Your task to perform on an android device: toggle data saver in the chrome app Image 0: 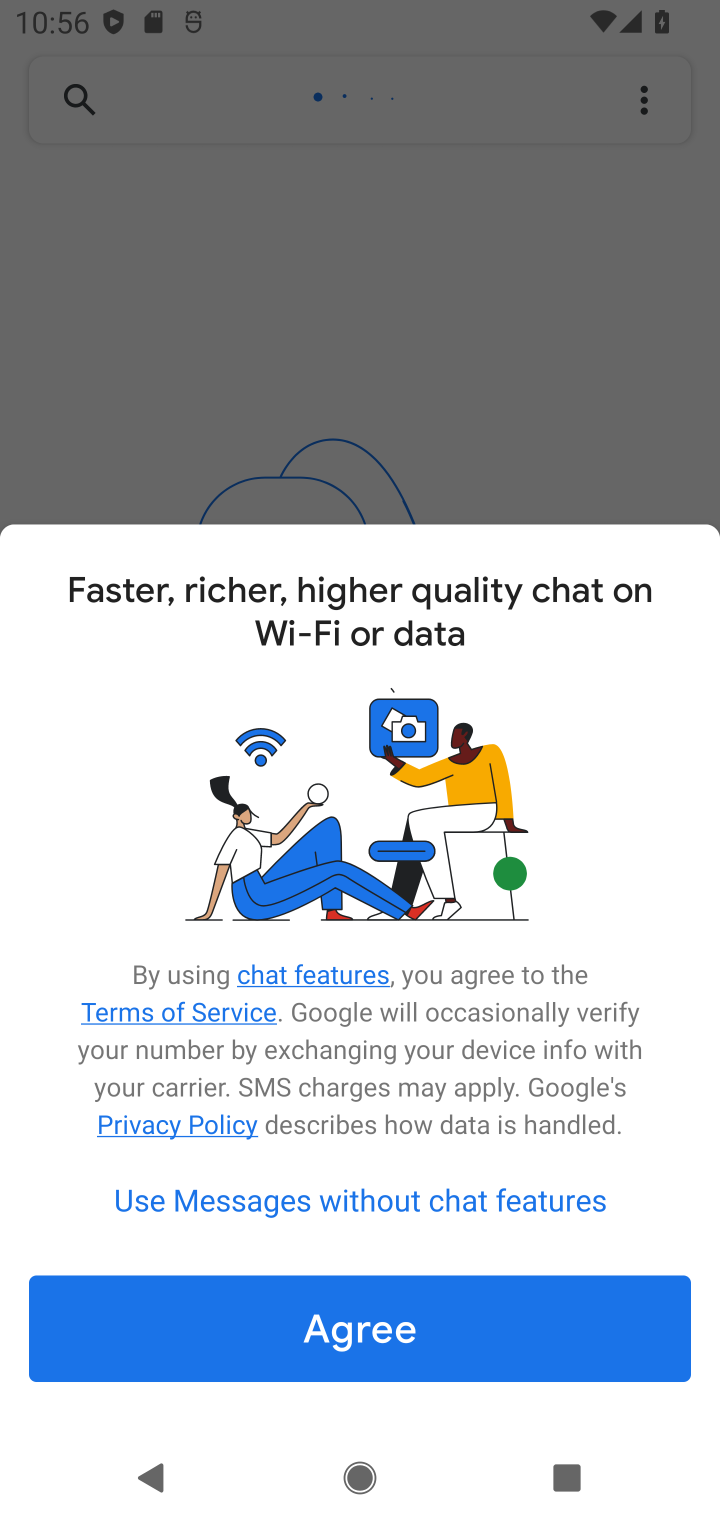
Step 0: press home button
Your task to perform on an android device: toggle data saver in the chrome app Image 1: 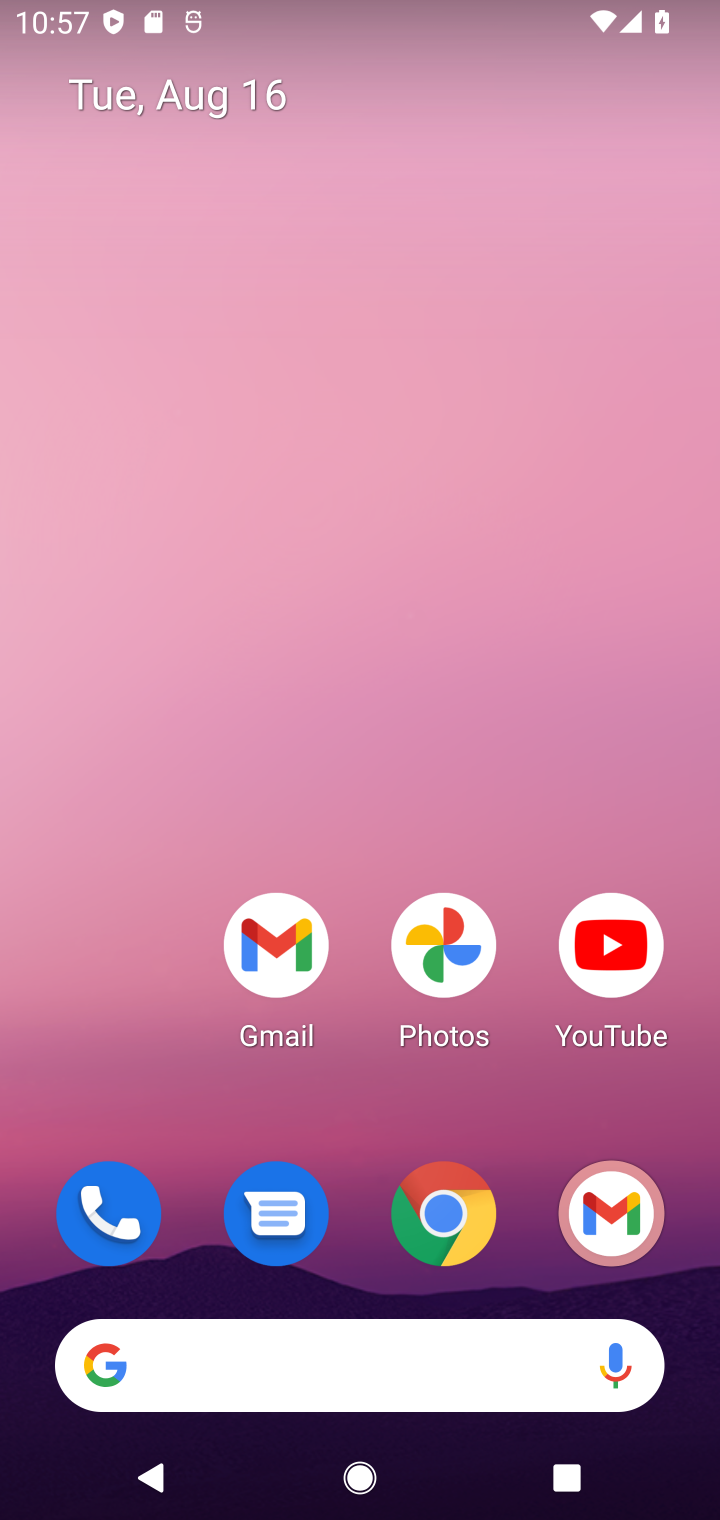
Step 1: drag from (517, 1158) to (549, 3)
Your task to perform on an android device: toggle data saver in the chrome app Image 2: 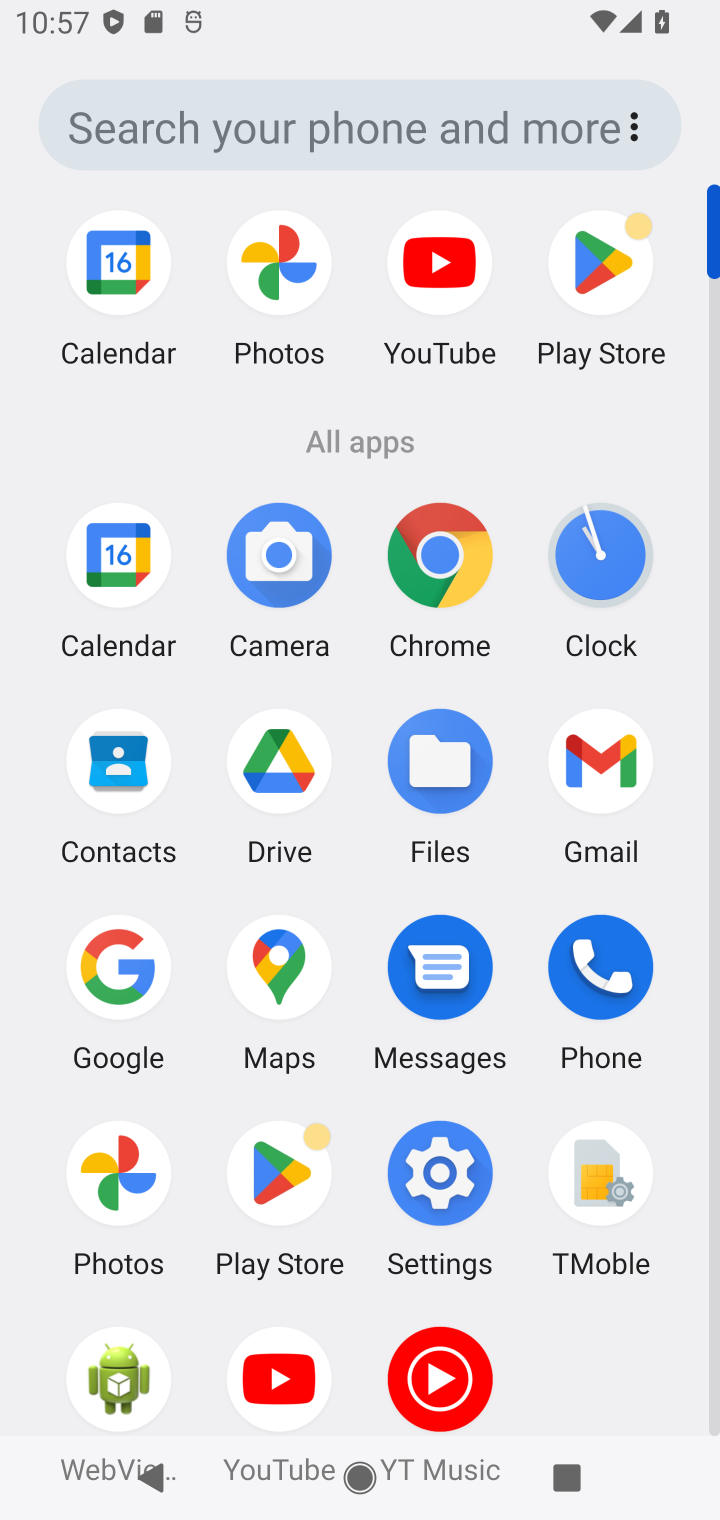
Step 2: click (443, 556)
Your task to perform on an android device: toggle data saver in the chrome app Image 3: 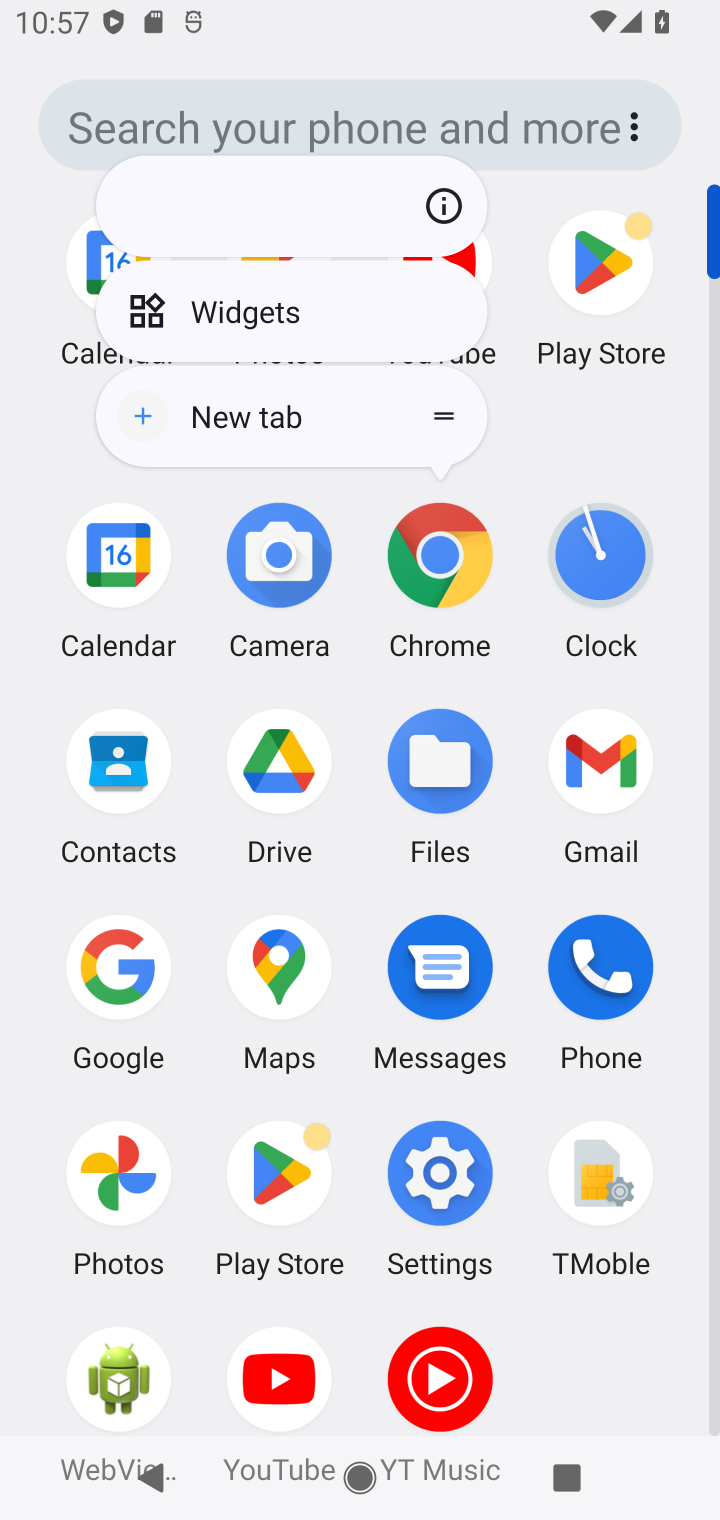
Step 3: click (443, 556)
Your task to perform on an android device: toggle data saver in the chrome app Image 4: 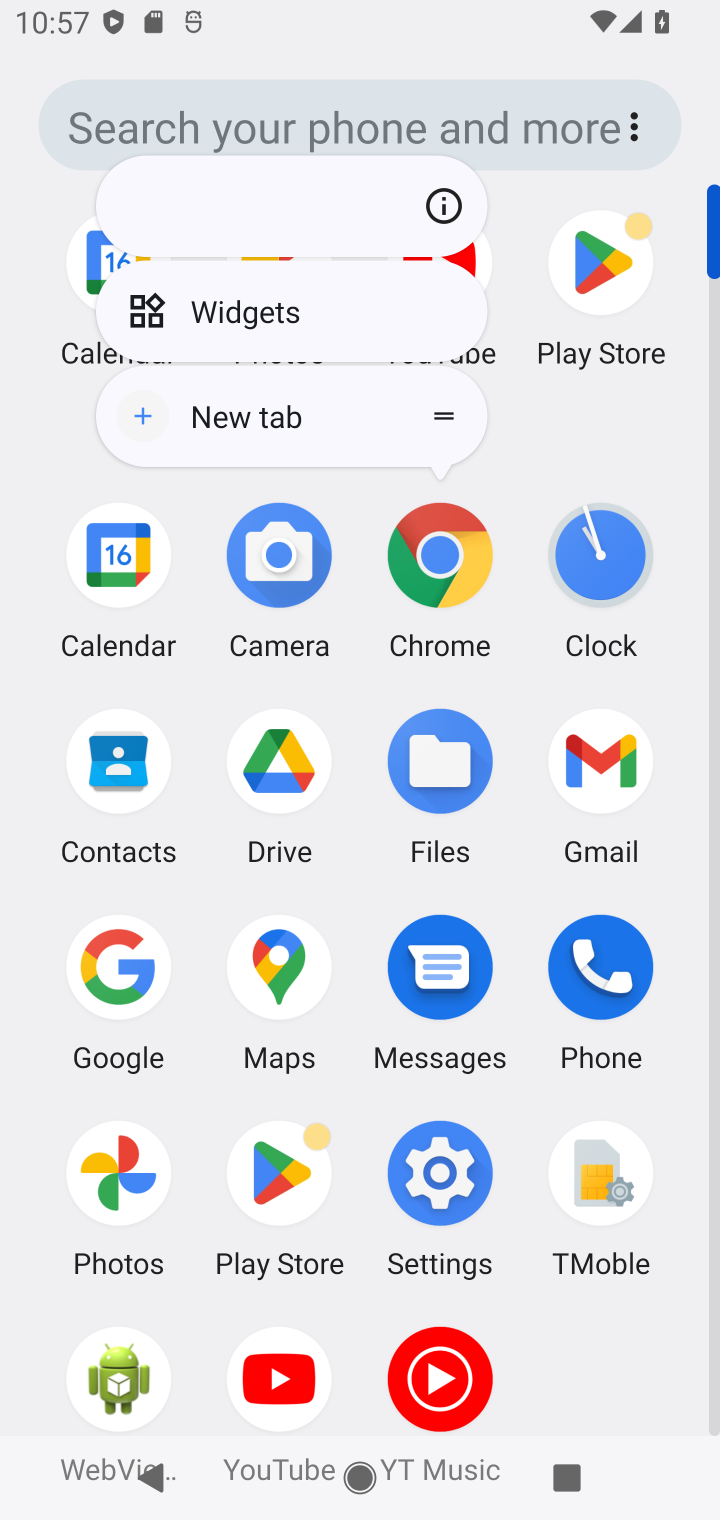
Step 4: click (443, 556)
Your task to perform on an android device: toggle data saver in the chrome app Image 5: 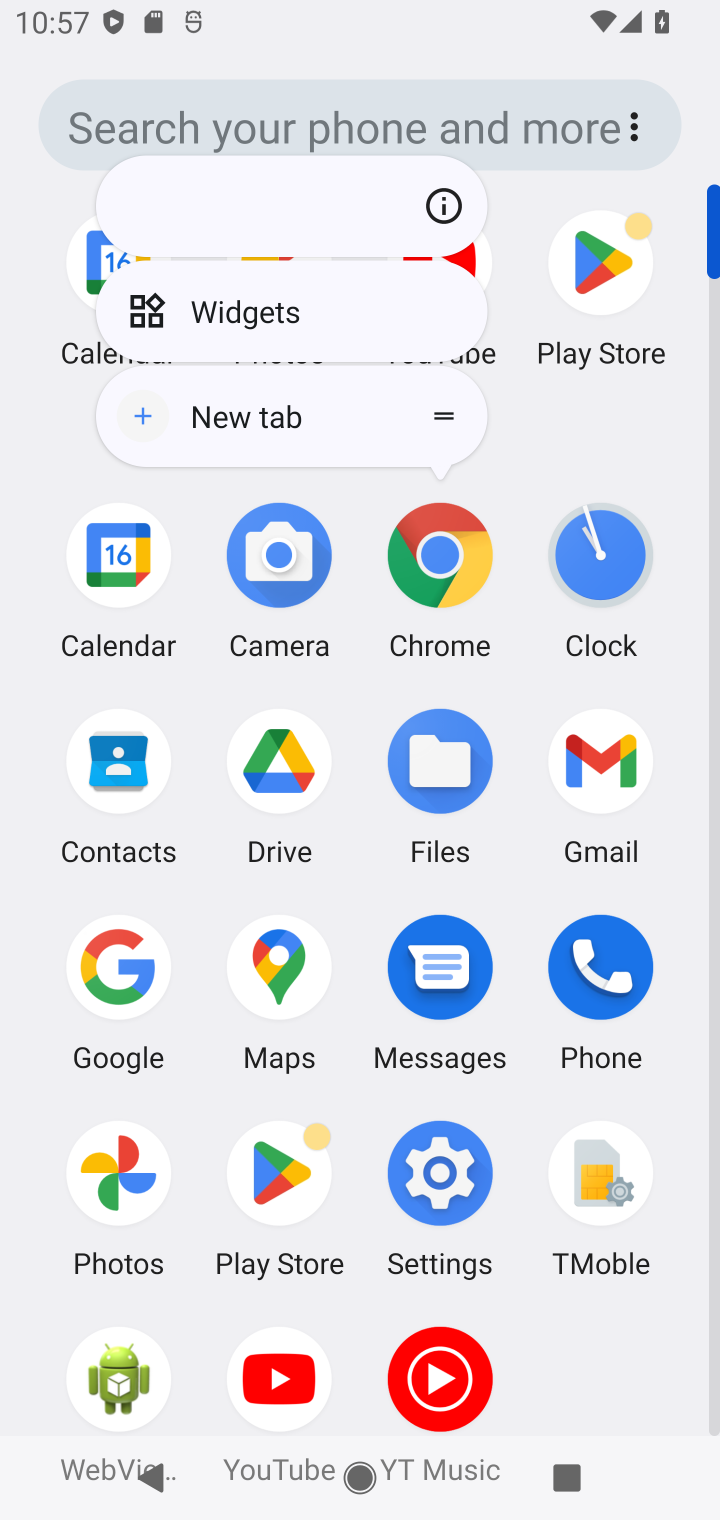
Step 5: click (431, 541)
Your task to perform on an android device: toggle data saver in the chrome app Image 6: 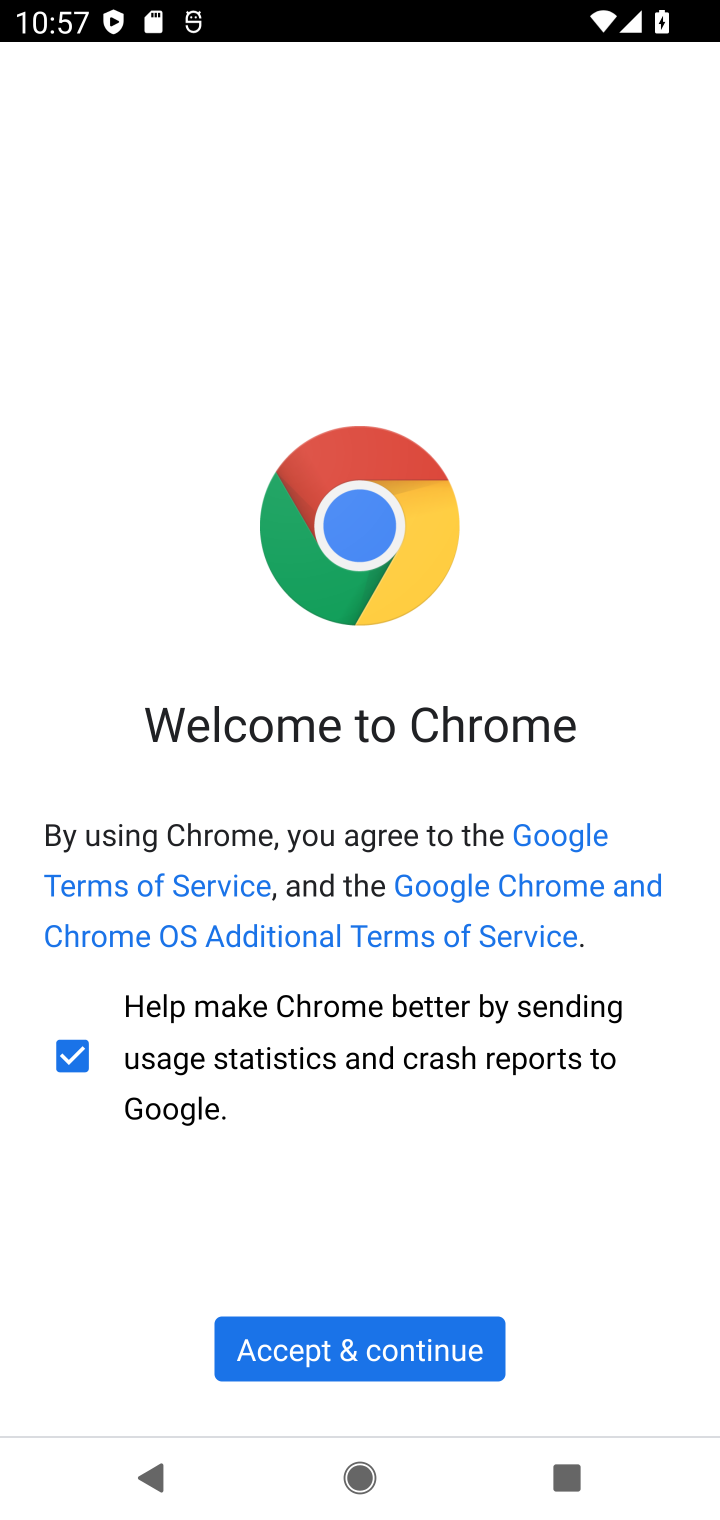
Step 6: click (467, 1364)
Your task to perform on an android device: toggle data saver in the chrome app Image 7: 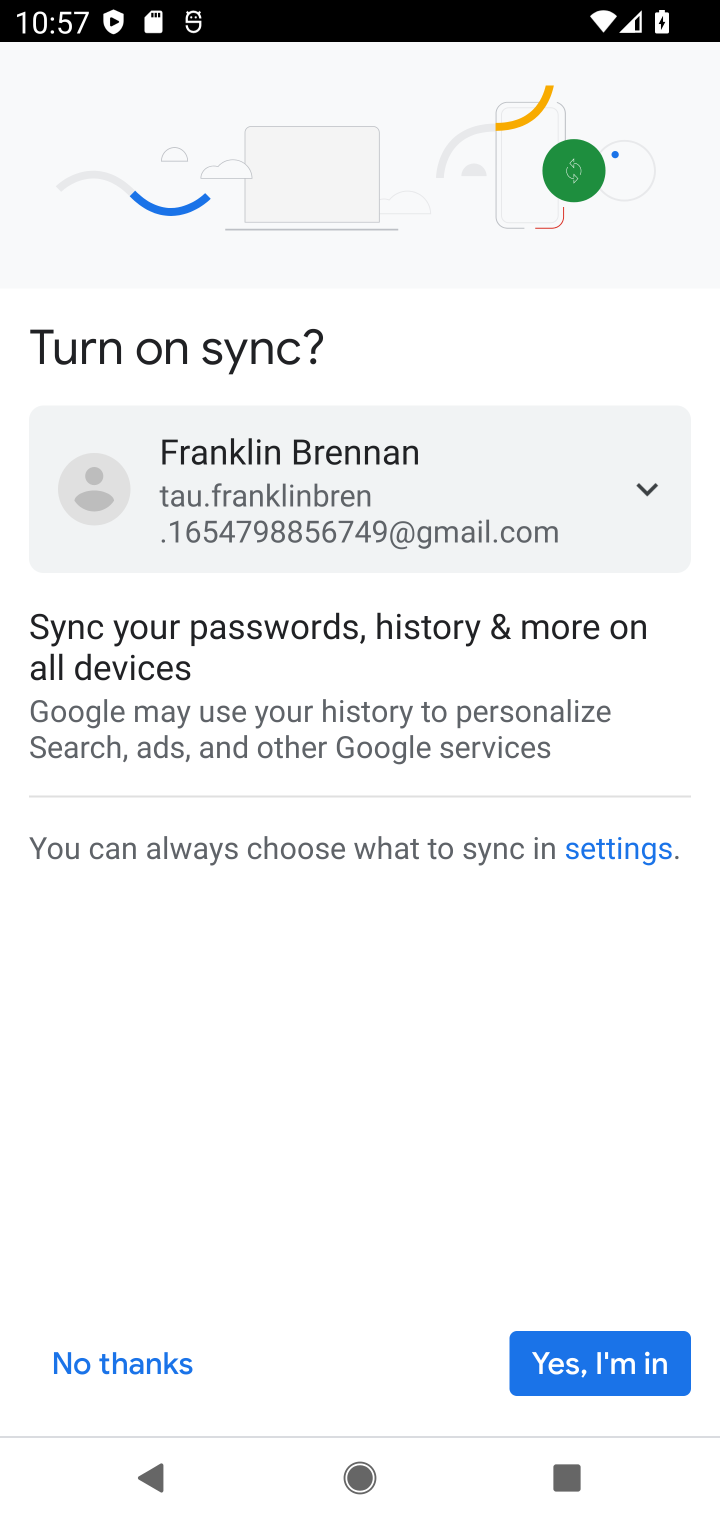
Step 7: click (641, 1360)
Your task to perform on an android device: toggle data saver in the chrome app Image 8: 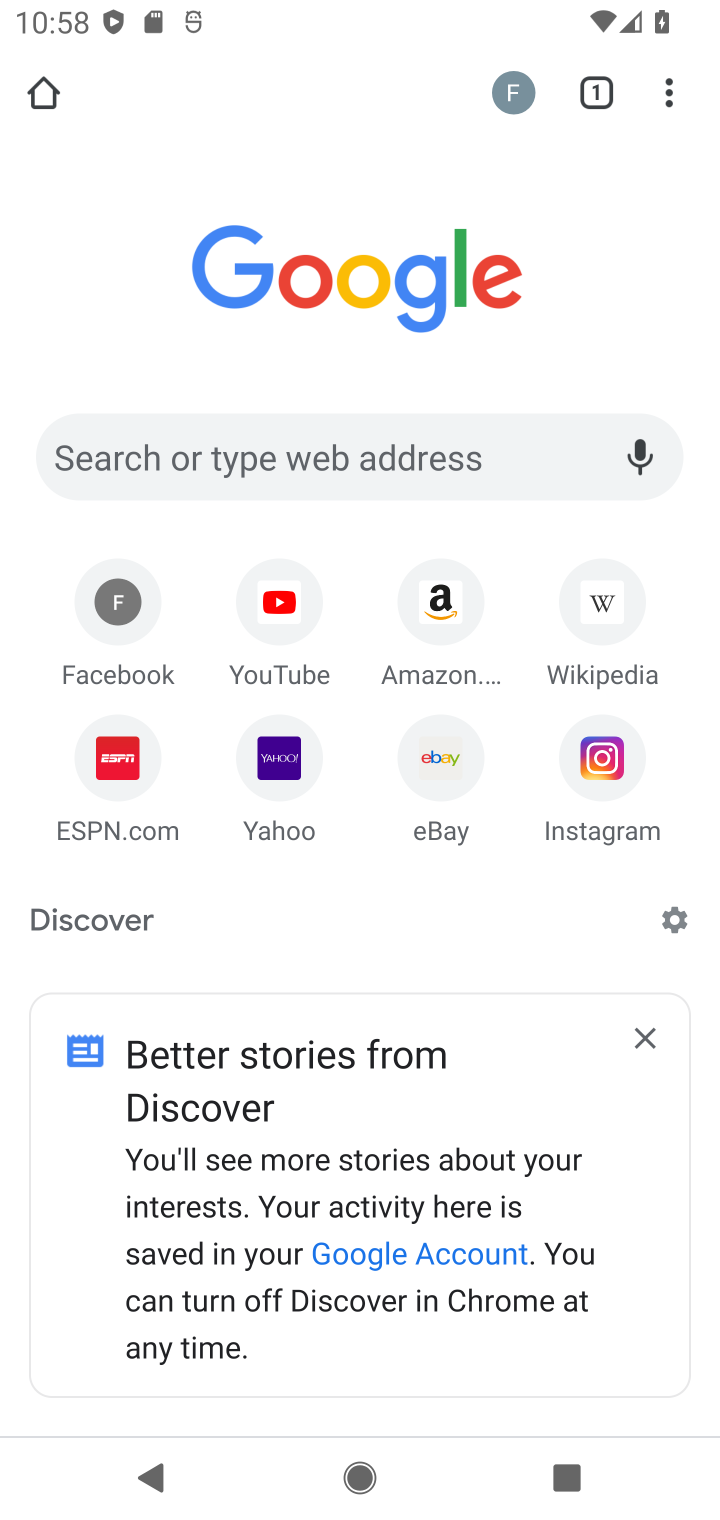
Step 8: drag from (678, 100) to (354, 863)
Your task to perform on an android device: toggle data saver in the chrome app Image 9: 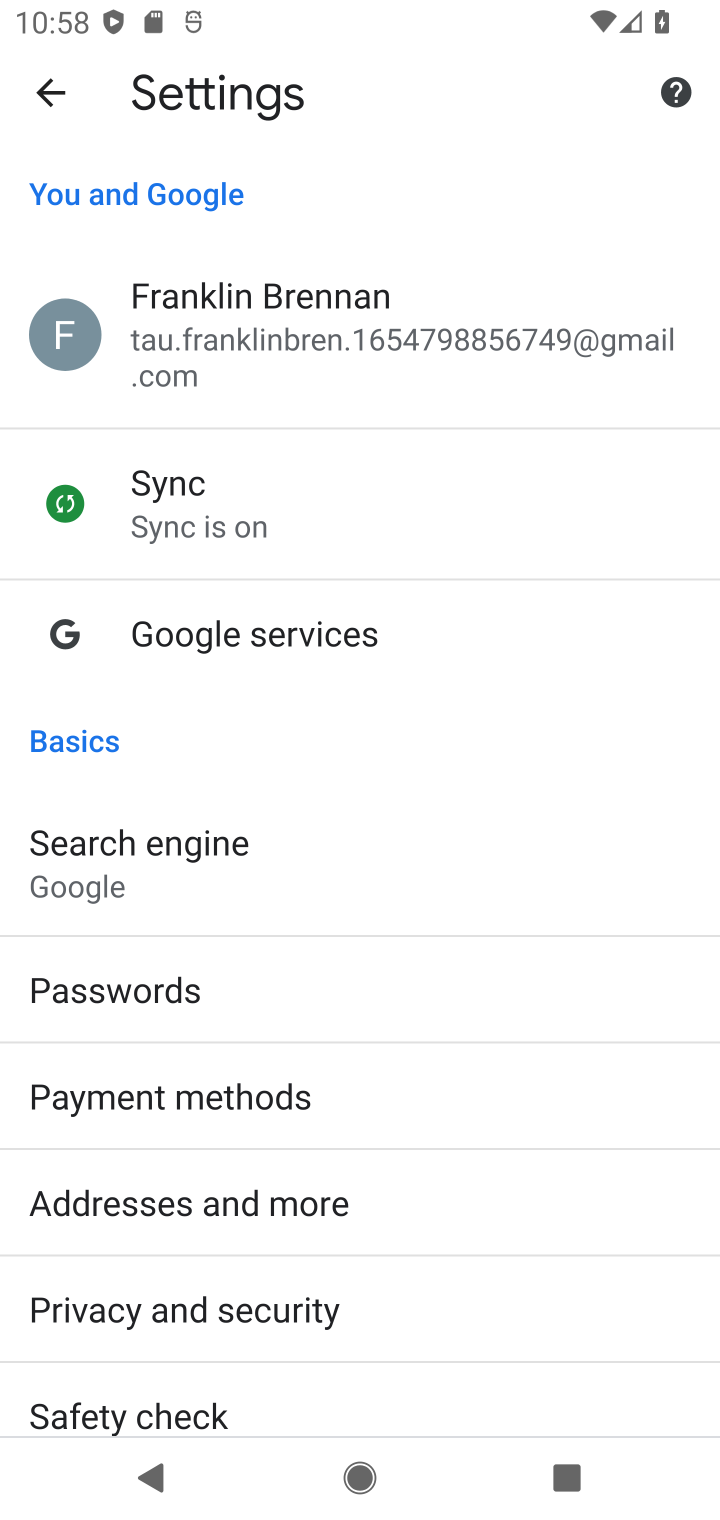
Step 9: drag from (383, 1178) to (399, 157)
Your task to perform on an android device: toggle data saver in the chrome app Image 10: 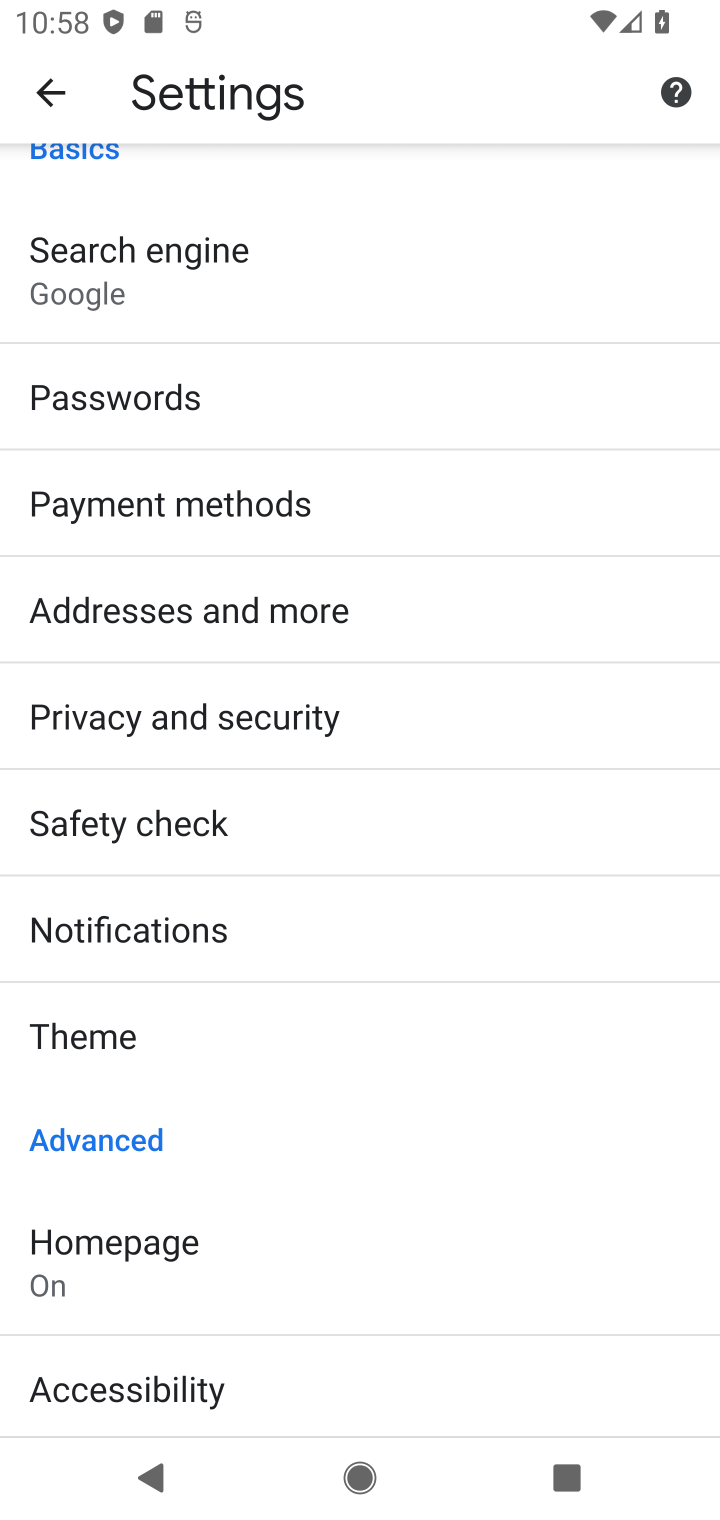
Step 10: drag from (302, 1190) to (388, 168)
Your task to perform on an android device: toggle data saver in the chrome app Image 11: 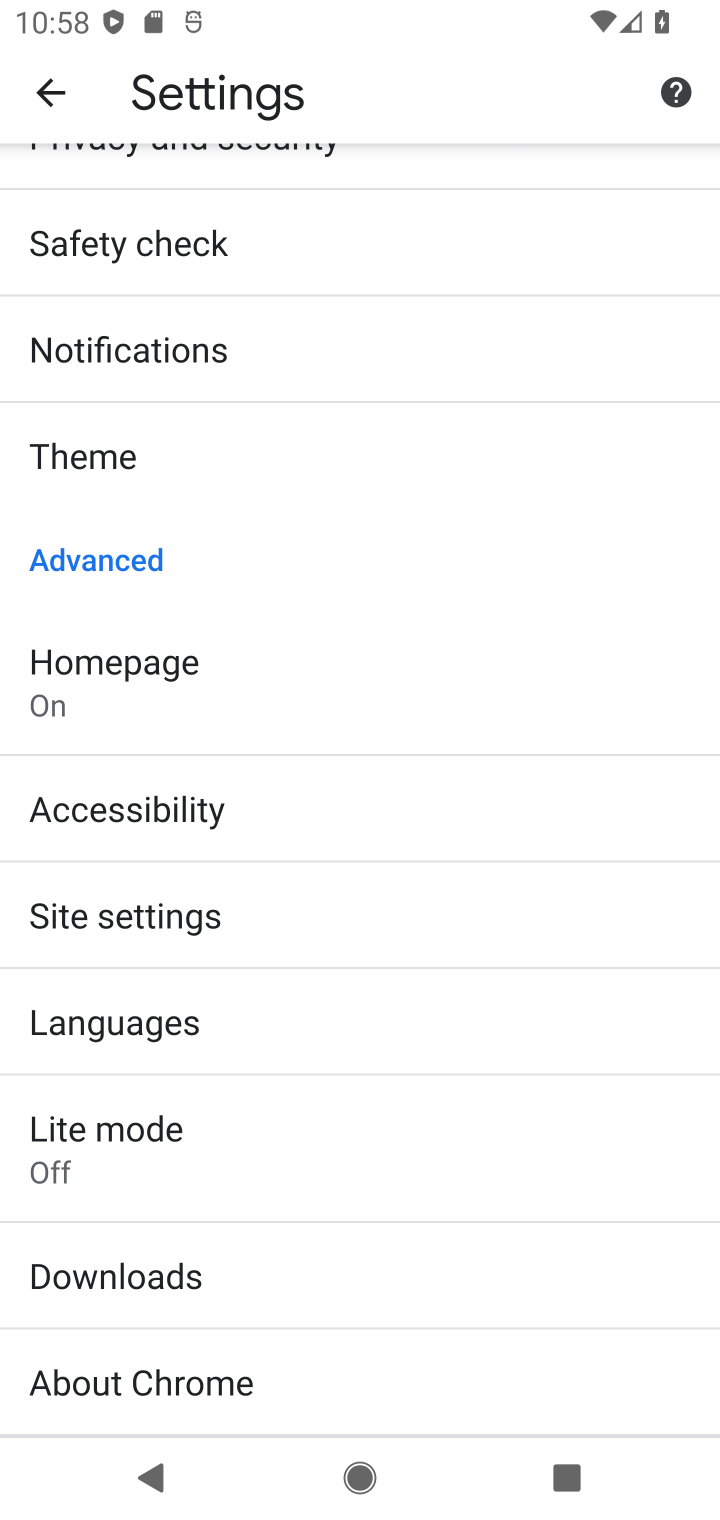
Step 11: click (186, 1158)
Your task to perform on an android device: toggle data saver in the chrome app Image 12: 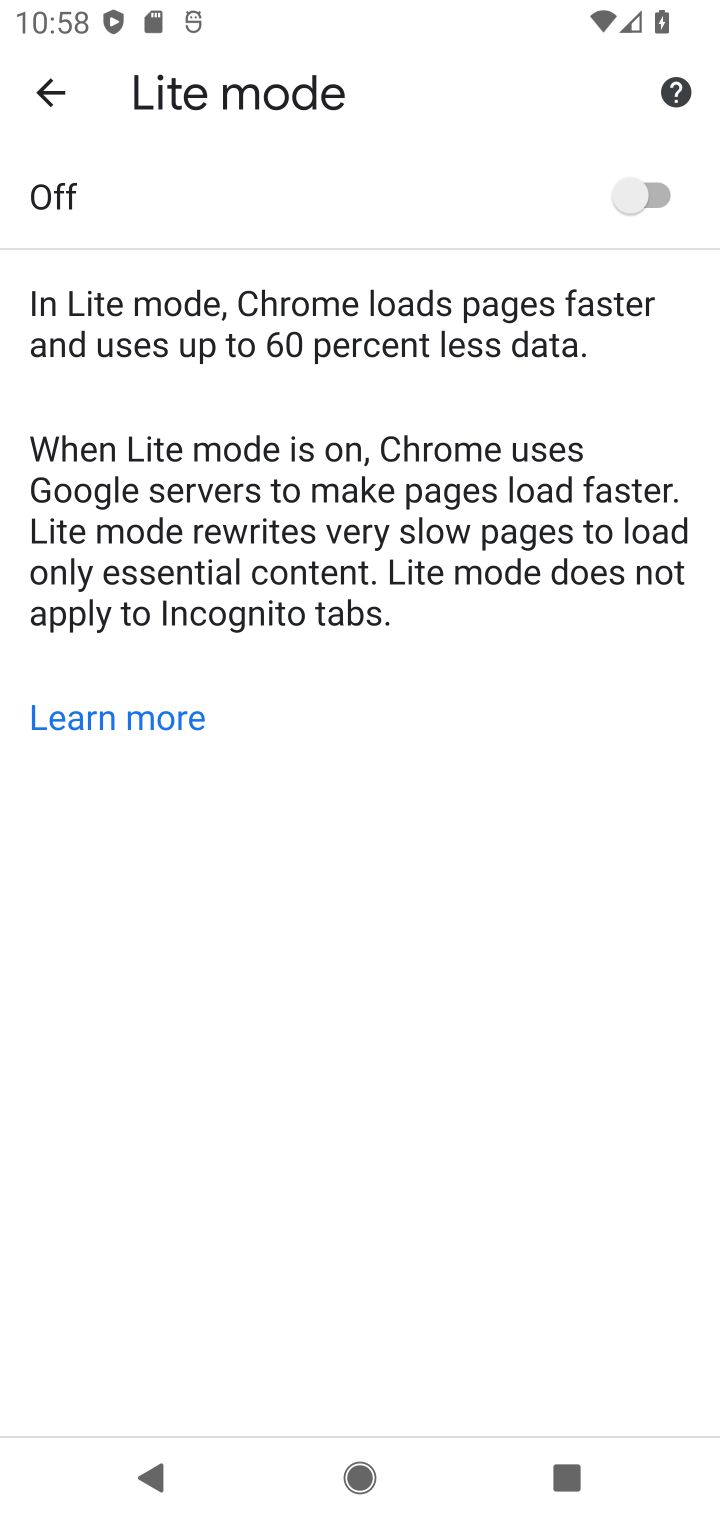
Step 12: click (647, 172)
Your task to perform on an android device: toggle data saver in the chrome app Image 13: 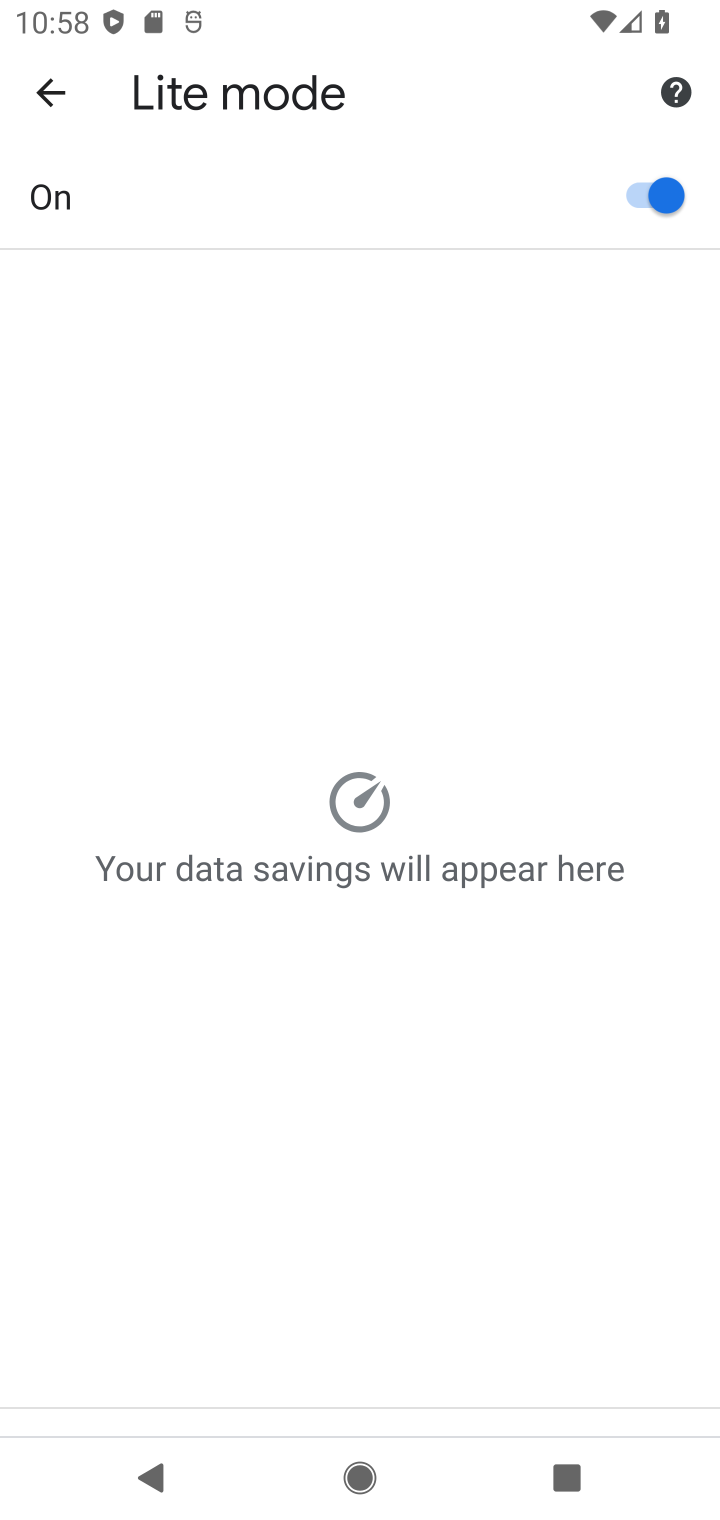
Step 13: task complete